Your task to perform on an android device: Is it going to rain today? Image 0: 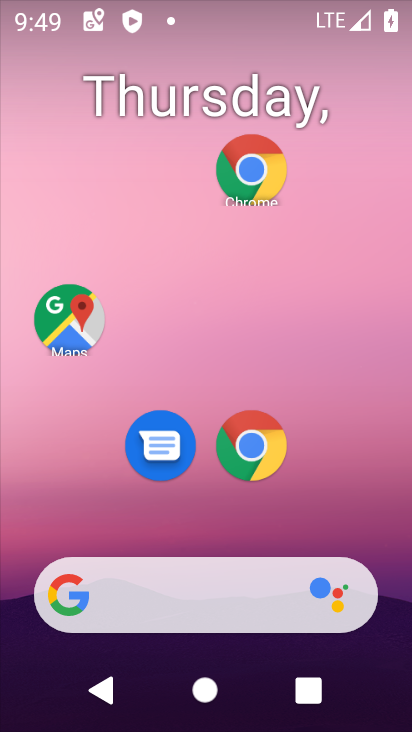
Step 0: click (179, 592)
Your task to perform on an android device: Is it going to rain today? Image 1: 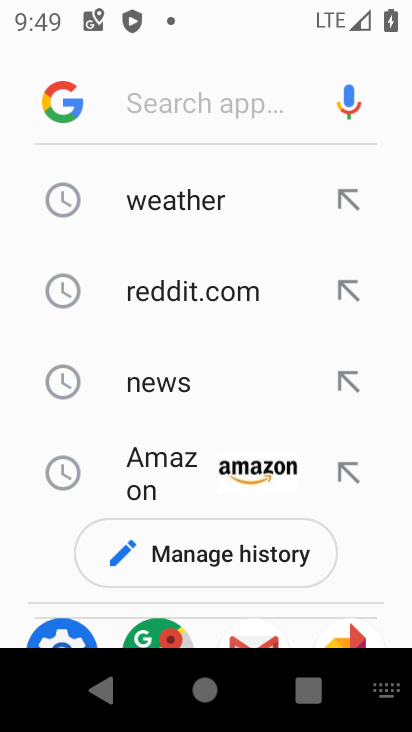
Step 1: click (180, 189)
Your task to perform on an android device: Is it going to rain today? Image 2: 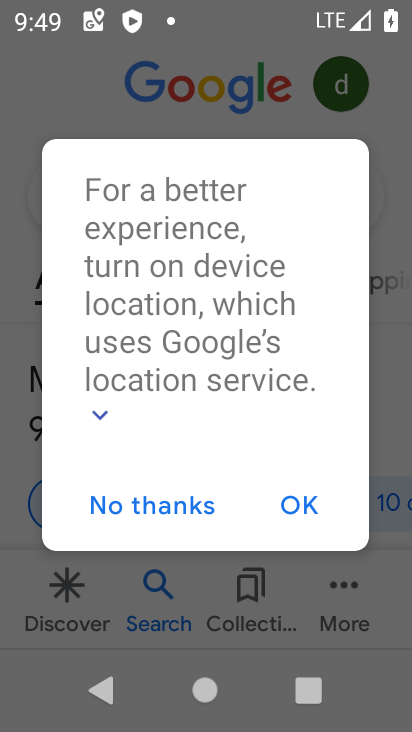
Step 2: click (293, 500)
Your task to perform on an android device: Is it going to rain today? Image 3: 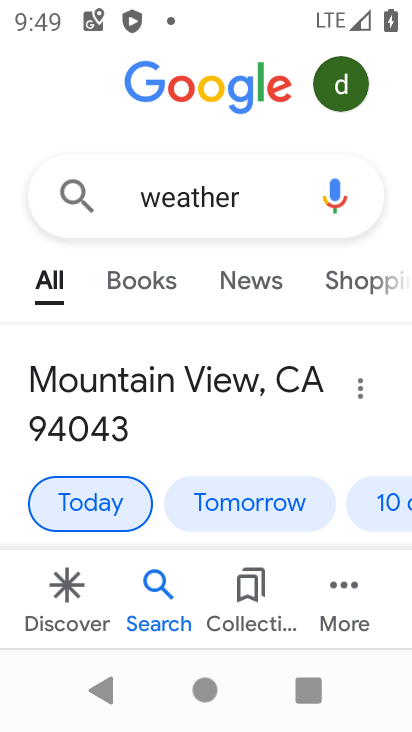
Step 3: click (104, 510)
Your task to perform on an android device: Is it going to rain today? Image 4: 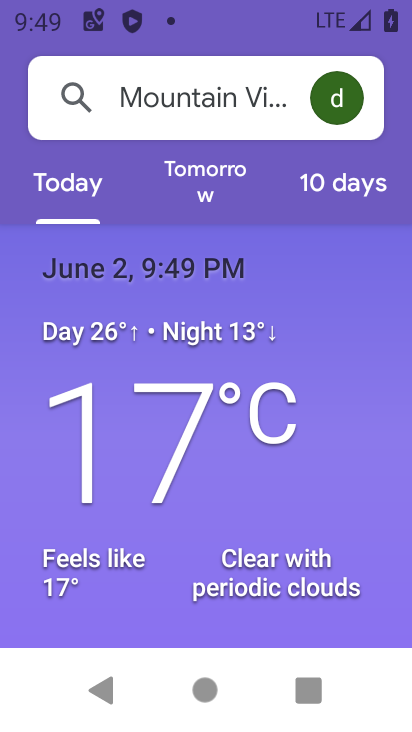
Step 4: task complete